Your task to perform on an android device: change the clock display to show seconds Image 0: 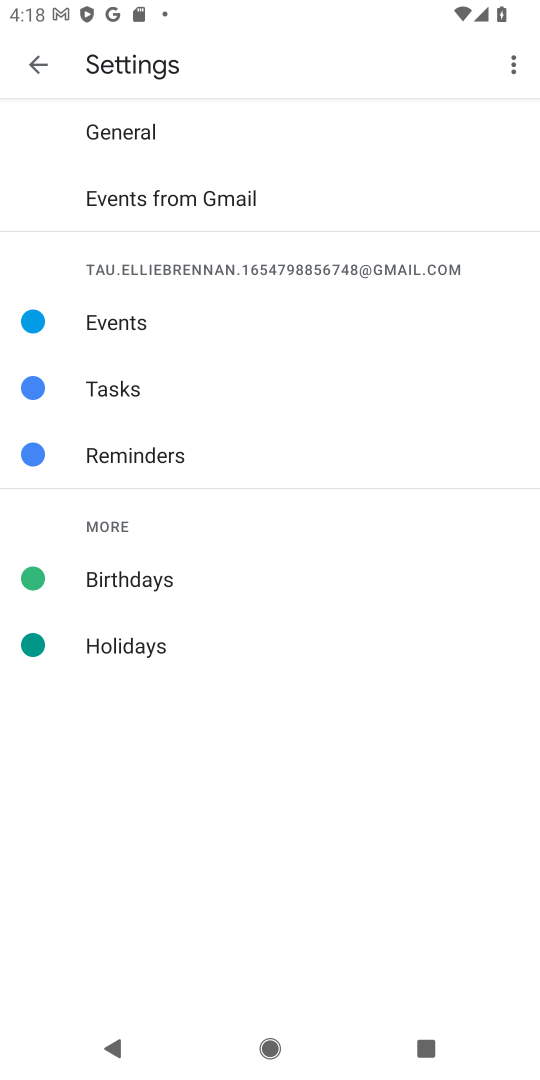
Step 0: press home button
Your task to perform on an android device: change the clock display to show seconds Image 1: 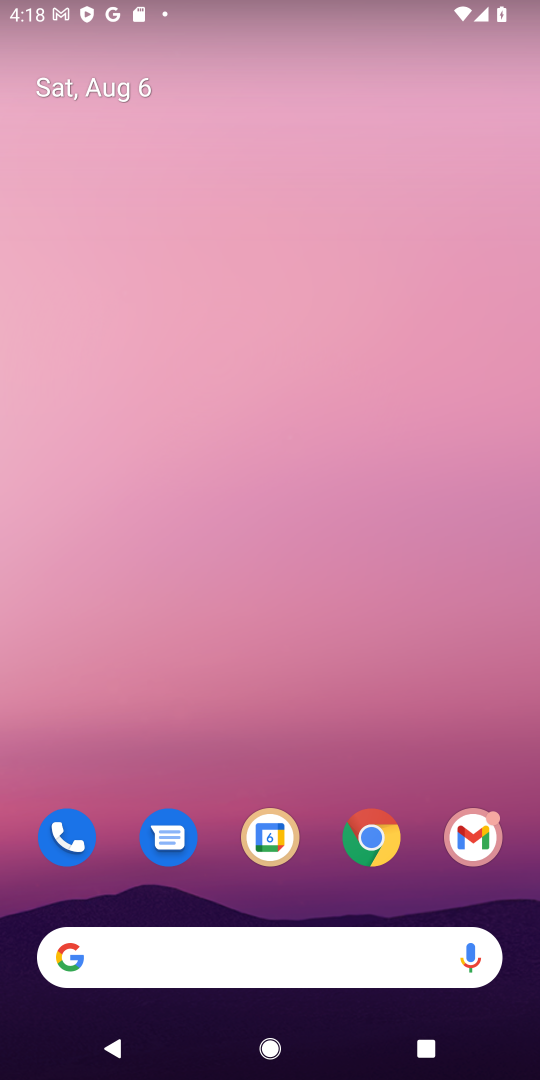
Step 1: drag from (422, 906) to (413, 135)
Your task to perform on an android device: change the clock display to show seconds Image 2: 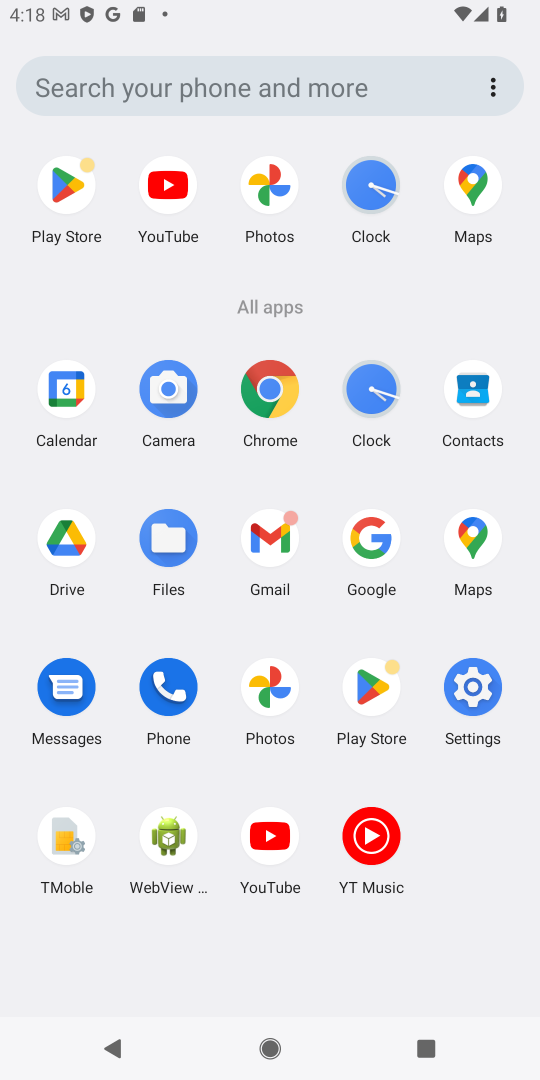
Step 2: click (372, 394)
Your task to perform on an android device: change the clock display to show seconds Image 3: 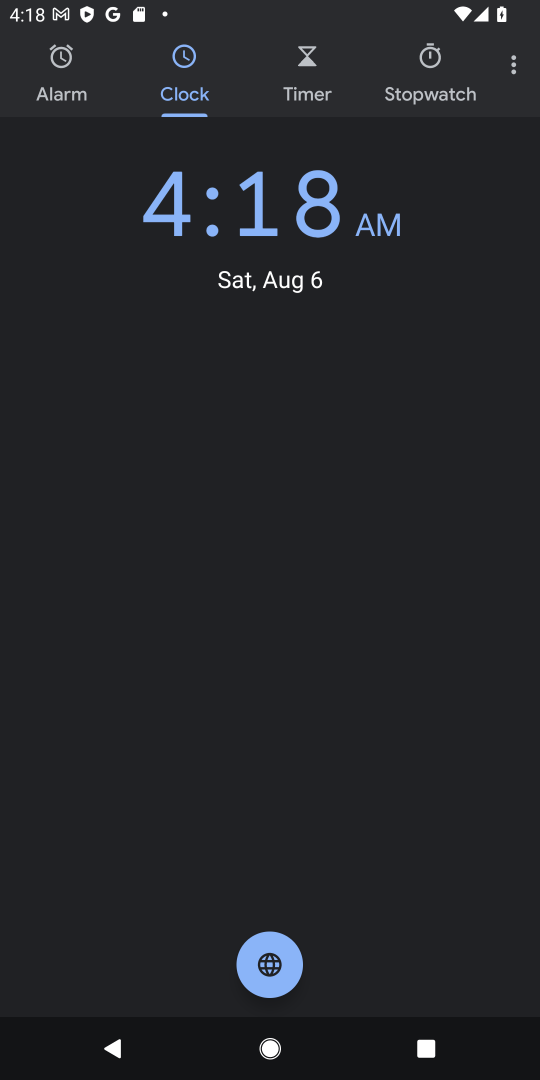
Step 3: click (511, 74)
Your task to perform on an android device: change the clock display to show seconds Image 4: 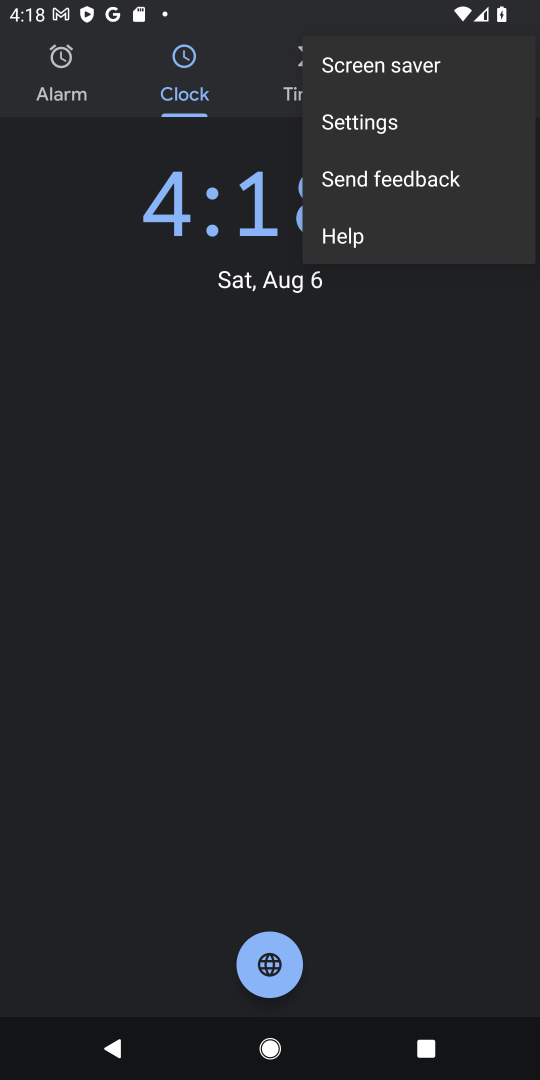
Step 4: click (376, 129)
Your task to perform on an android device: change the clock display to show seconds Image 5: 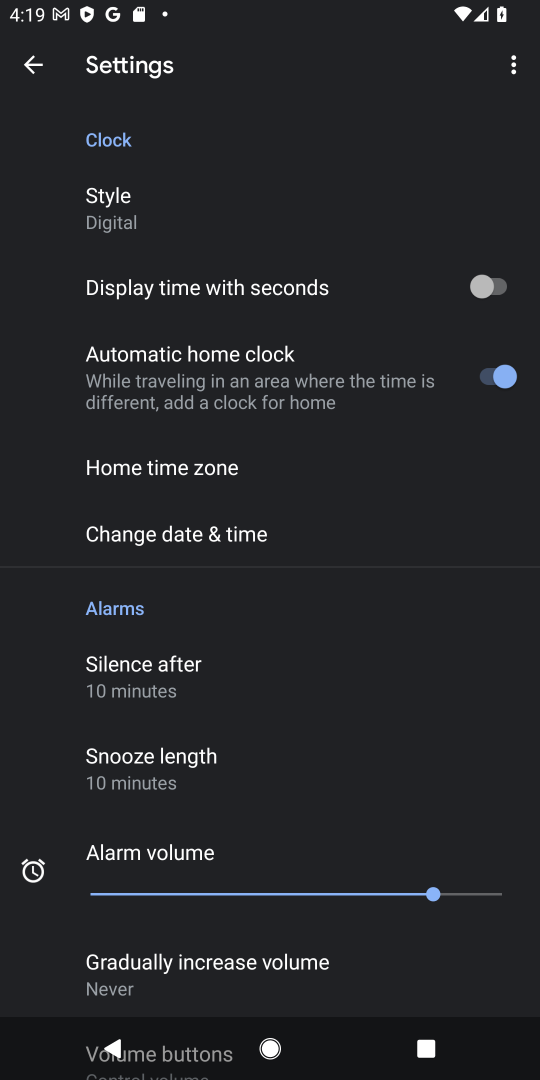
Step 5: click (500, 291)
Your task to perform on an android device: change the clock display to show seconds Image 6: 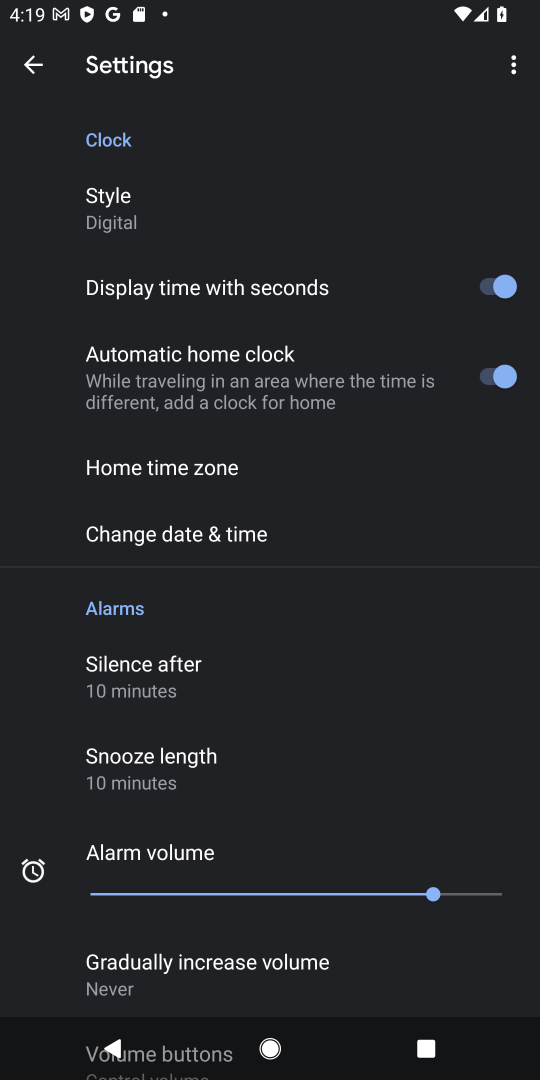
Step 6: task complete